Your task to perform on an android device: Open Chrome and go to settings Image 0: 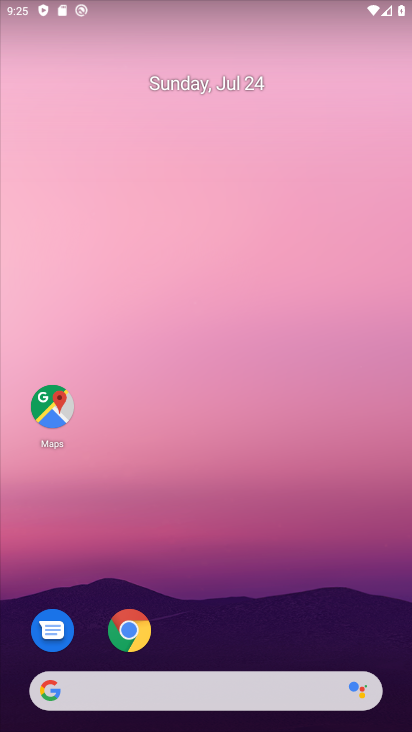
Step 0: drag from (312, 657) to (267, 164)
Your task to perform on an android device: Open Chrome and go to settings Image 1: 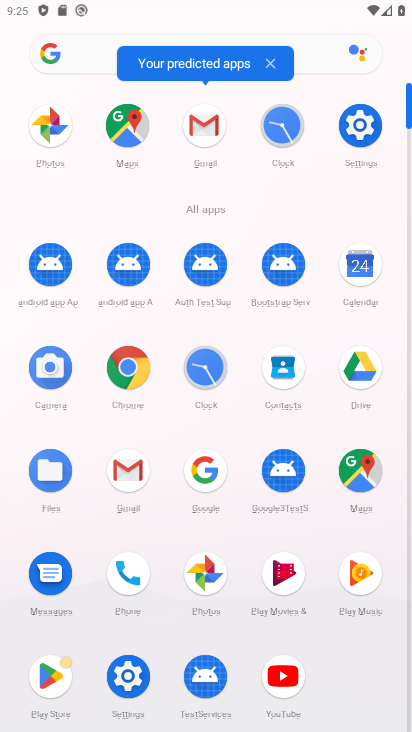
Step 1: click (136, 357)
Your task to perform on an android device: Open Chrome and go to settings Image 2: 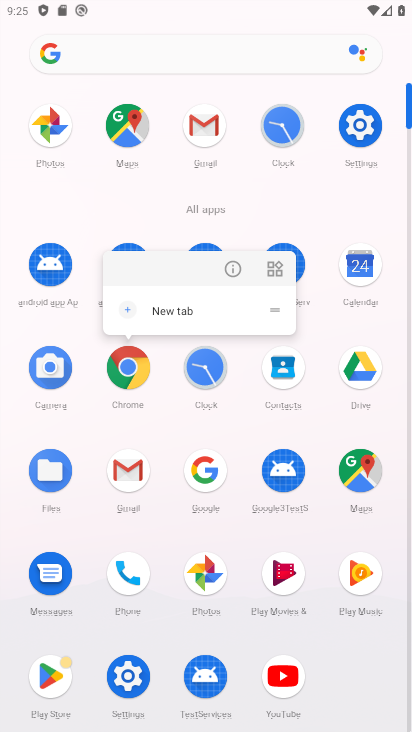
Step 2: click (136, 357)
Your task to perform on an android device: Open Chrome and go to settings Image 3: 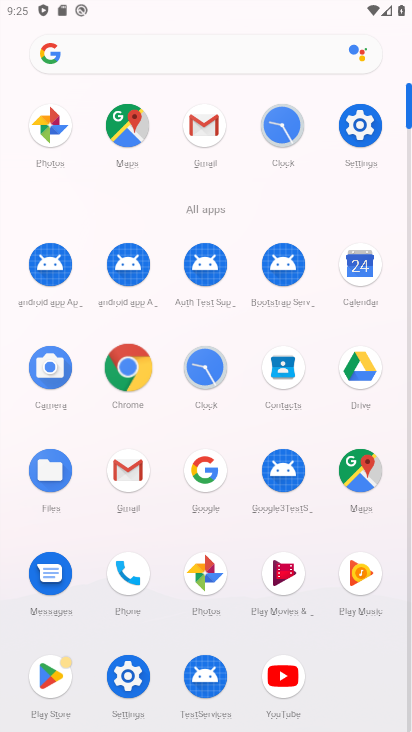
Step 3: click (132, 368)
Your task to perform on an android device: Open Chrome and go to settings Image 4: 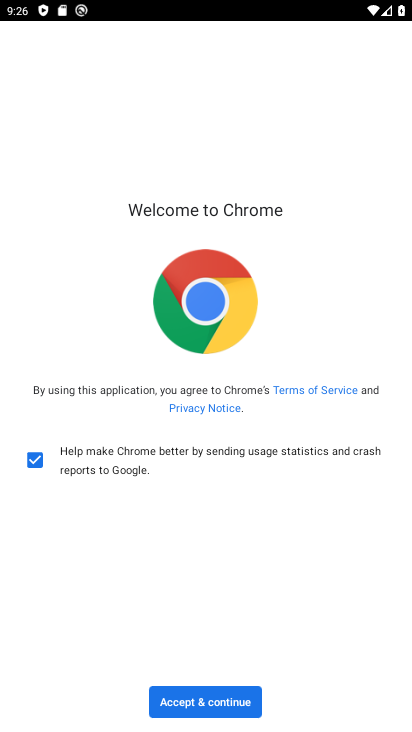
Step 4: click (215, 696)
Your task to perform on an android device: Open Chrome and go to settings Image 5: 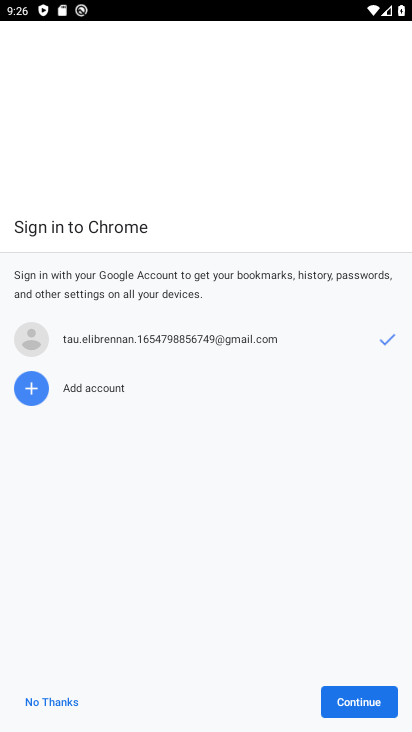
Step 5: click (387, 690)
Your task to perform on an android device: Open Chrome and go to settings Image 6: 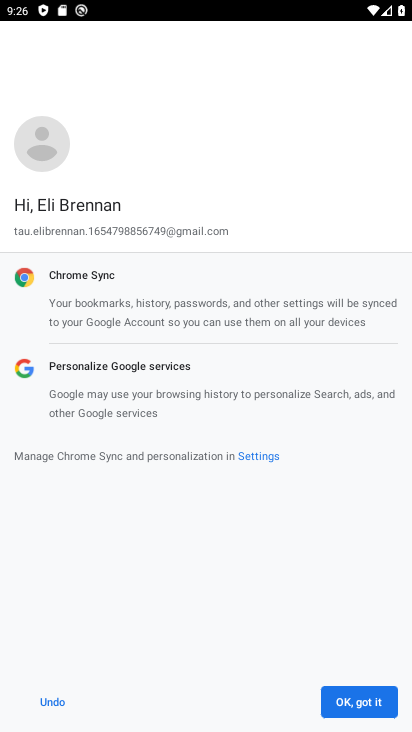
Step 6: click (356, 699)
Your task to perform on an android device: Open Chrome and go to settings Image 7: 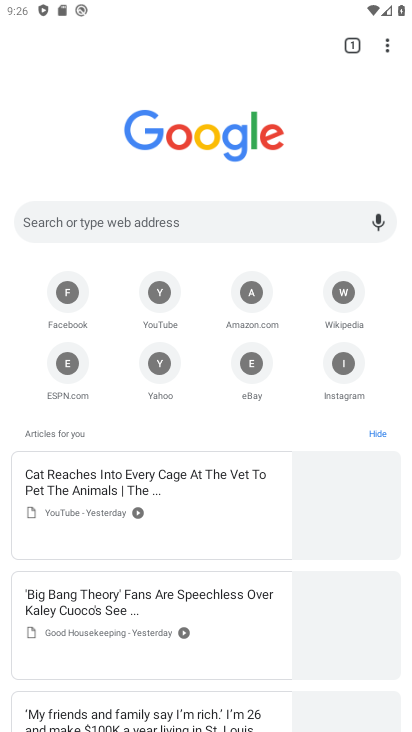
Step 7: click (391, 38)
Your task to perform on an android device: Open Chrome and go to settings Image 8: 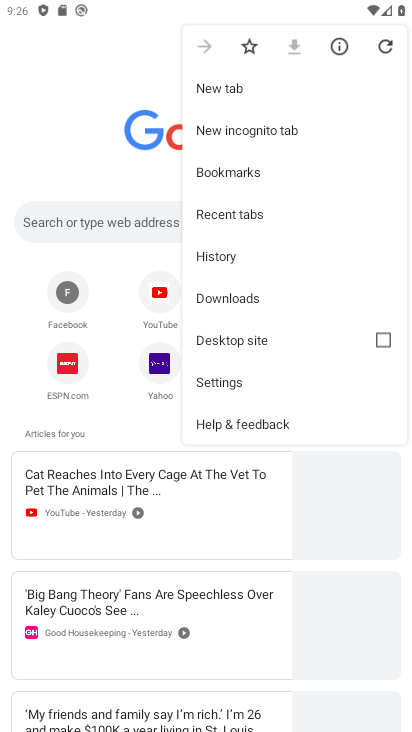
Step 8: click (246, 385)
Your task to perform on an android device: Open Chrome and go to settings Image 9: 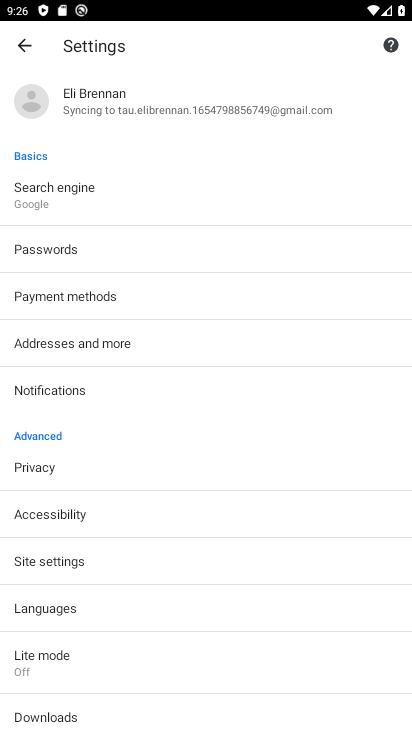
Step 9: task complete